Your task to perform on an android device: Open ESPN.com Image 0: 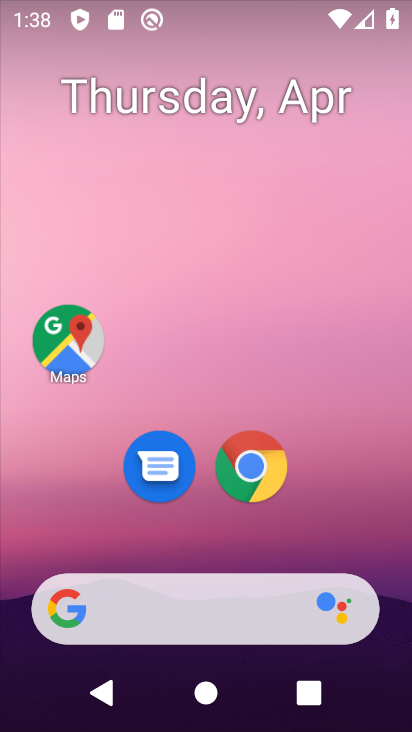
Step 0: drag from (319, 462) to (270, 21)
Your task to perform on an android device: Open ESPN.com Image 1: 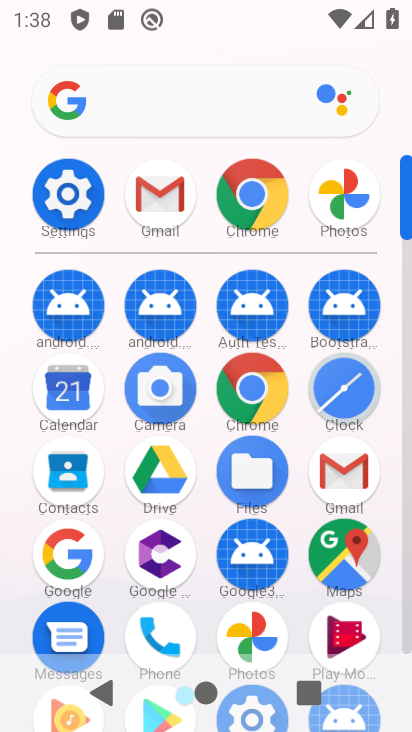
Step 1: drag from (0, 487) to (0, 265)
Your task to perform on an android device: Open ESPN.com Image 2: 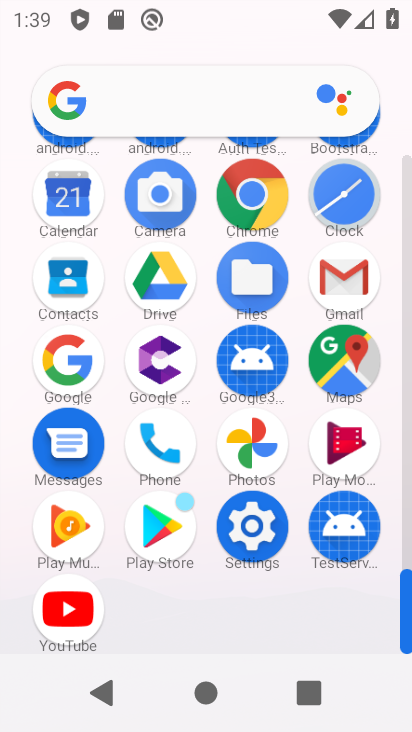
Step 2: click (254, 195)
Your task to perform on an android device: Open ESPN.com Image 3: 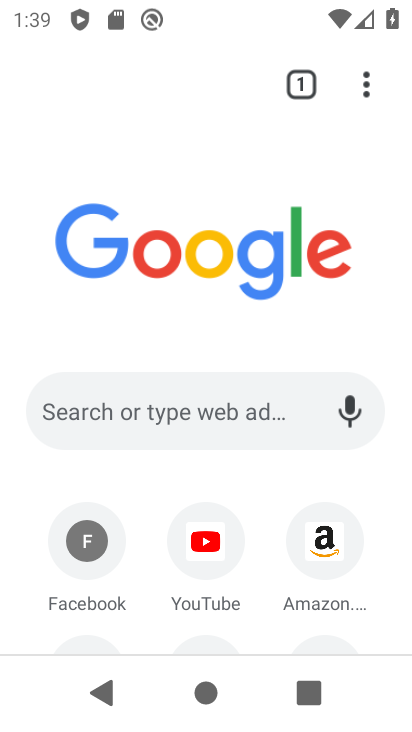
Step 3: click (182, 404)
Your task to perform on an android device: Open ESPN.com Image 4: 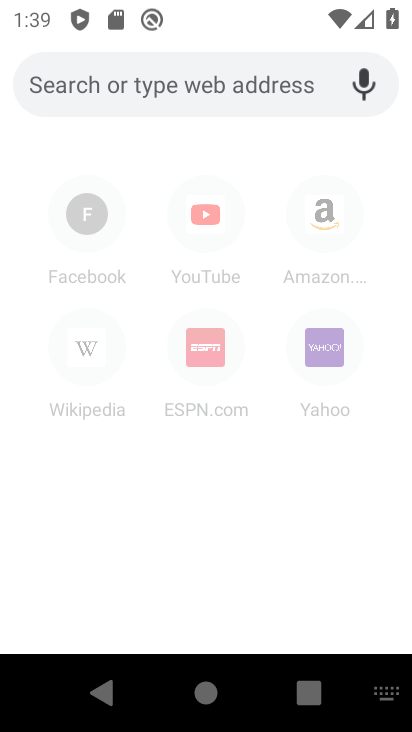
Step 4: click (220, 335)
Your task to perform on an android device: Open ESPN.com Image 5: 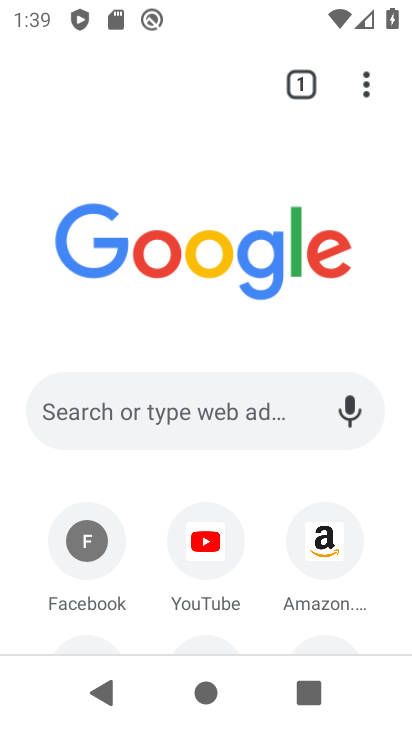
Step 5: drag from (251, 581) to (249, 300)
Your task to perform on an android device: Open ESPN.com Image 6: 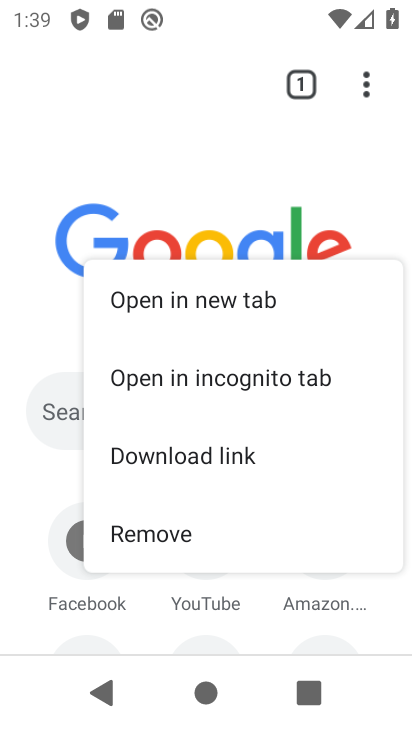
Step 6: drag from (21, 483) to (22, 241)
Your task to perform on an android device: Open ESPN.com Image 7: 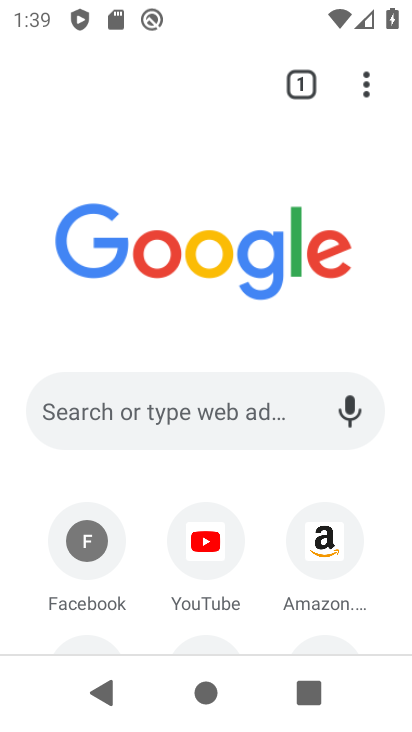
Step 7: drag from (19, 465) to (19, 269)
Your task to perform on an android device: Open ESPN.com Image 8: 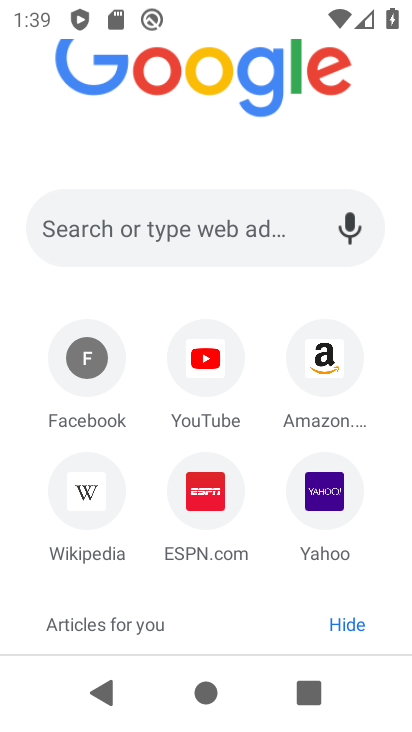
Step 8: click (197, 494)
Your task to perform on an android device: Open ESPN.com Image 9: 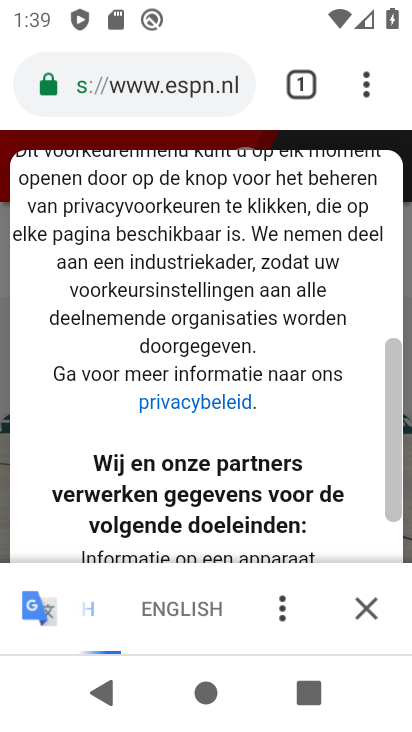
Step 9: task complete